Your task to perform on an android device: Do I have any events this weekend? Image 0: 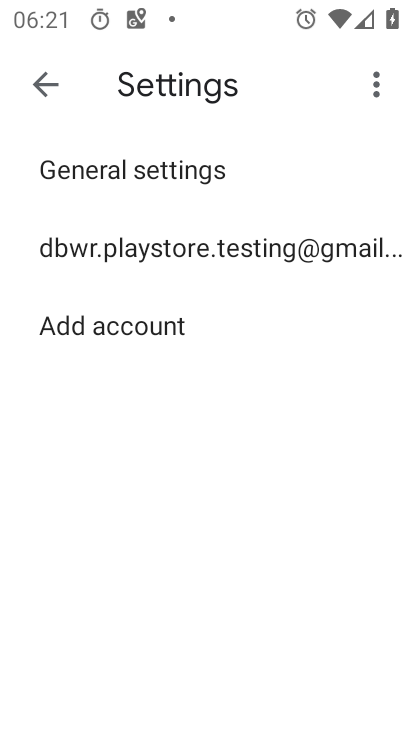
Step 0: press home button
Your task to perform on an android device: Do I have any events this weekend? Image 1: 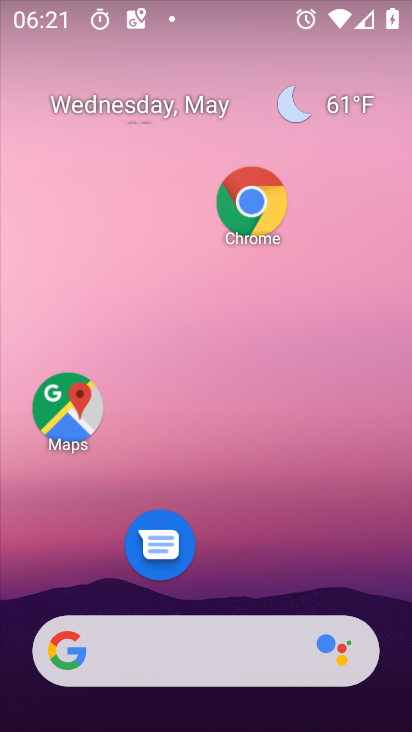
Step 1: drag from (189, 609) to (193, 257)
Your task to perform on an android device: Do I have any events this weekend? Image 2: 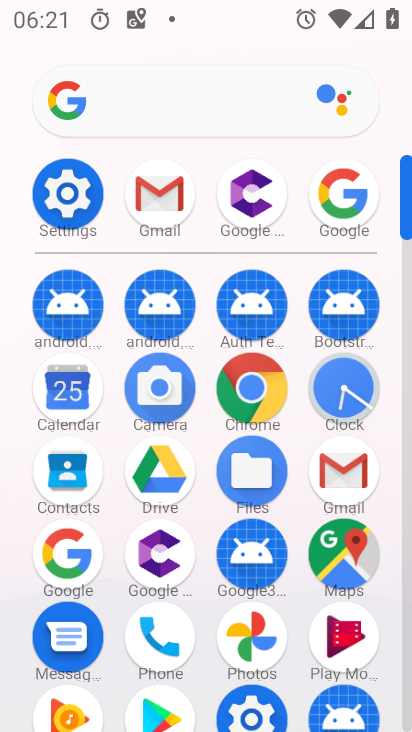
Step 2: click (100, 396)
Your task to perform on an android device: Do I have any events this weekend? Image 3: 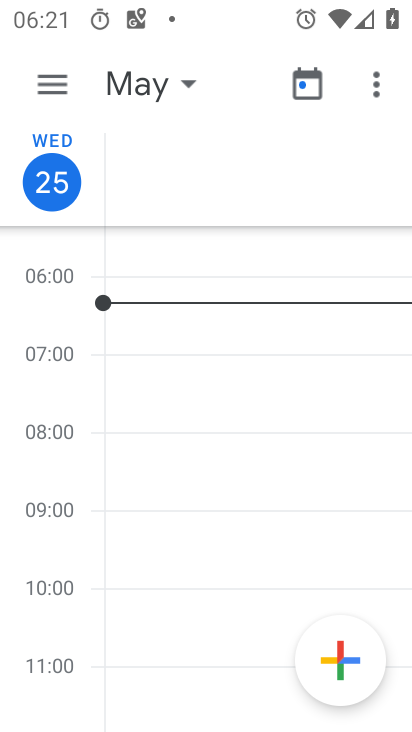
Step 3: click (171, 49)
Your task to perform on an android device: Do I have any events this weekend? Image 4: 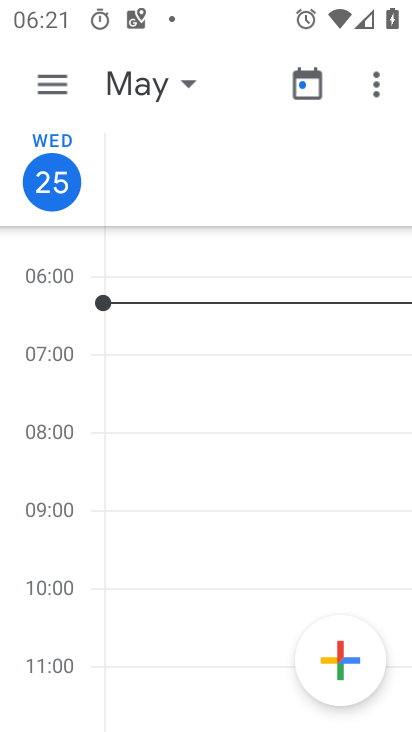
Step 4: click (174, 79)
Your task to perform on an android device: Do I have any events this weekend? Image 5: 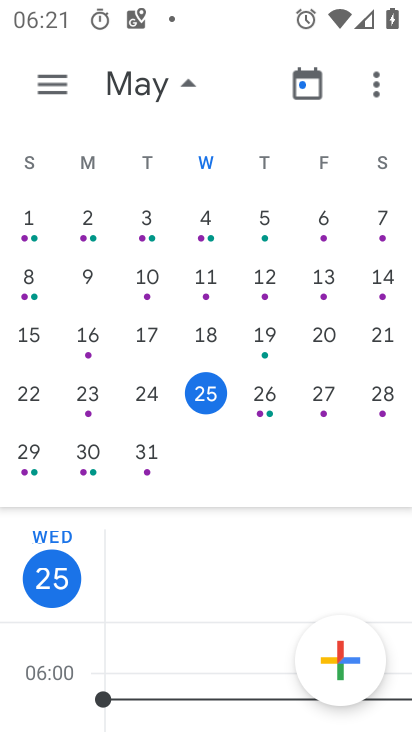
Step 5: click (15, 458)
Your task to perform on an android device: Do I have any events this weekend? Image 6: 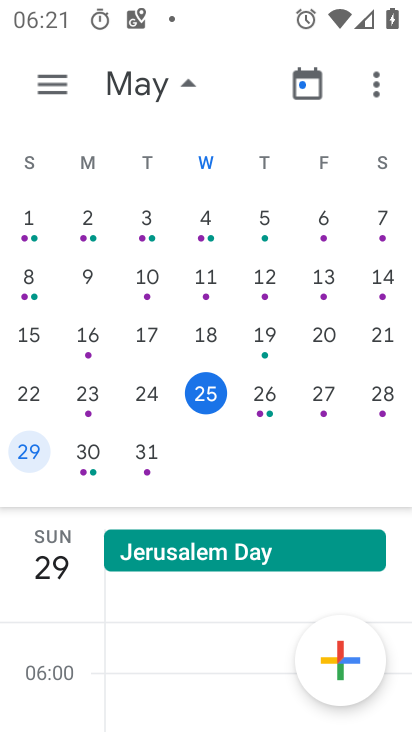
Step 6: task complete